Your task to perform on an android device: Open accessibility settings Image 0: 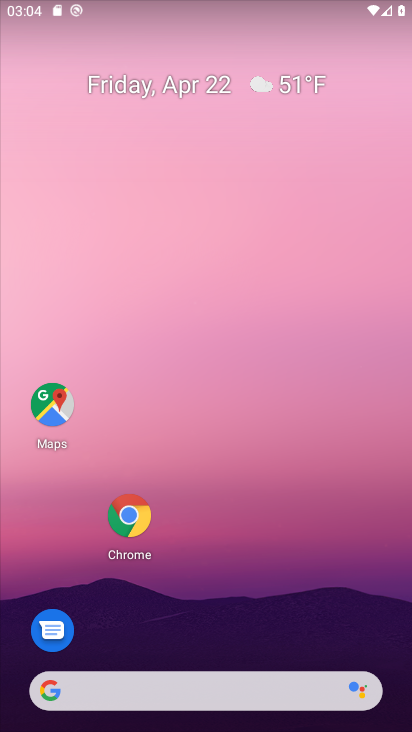
Step 0: drag from (342, 426) to (338, 163)
Your task to perform on an android device: Open accessibility settings Image 1: 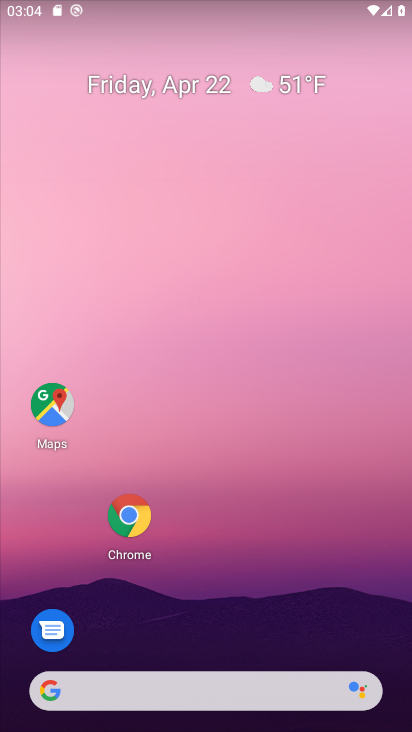
Step 1: click (373, 198)
Your task to perform on an android device: Open accessibility settings Image 2: 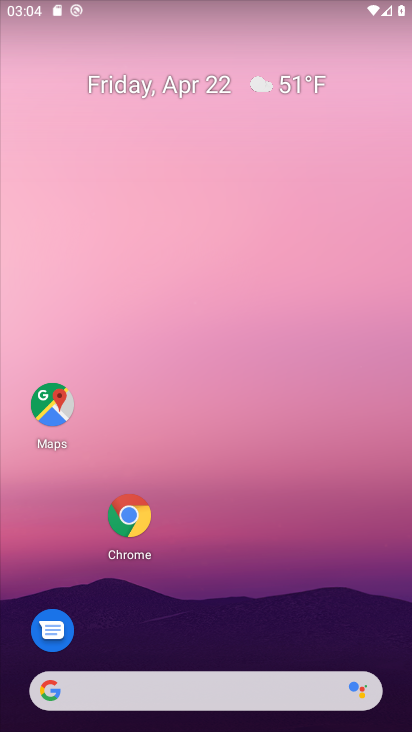
Step 2: drag from (395, 676) to (394, 240)
Your task to perform on an android device: Open accessibility settings Image 3: 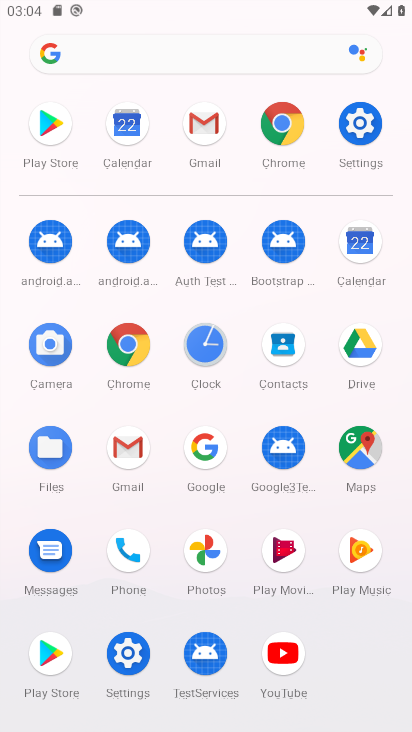
Step 3: click (130, 650)
Your task to perform on an android device: Open accessibility settings Image 4: 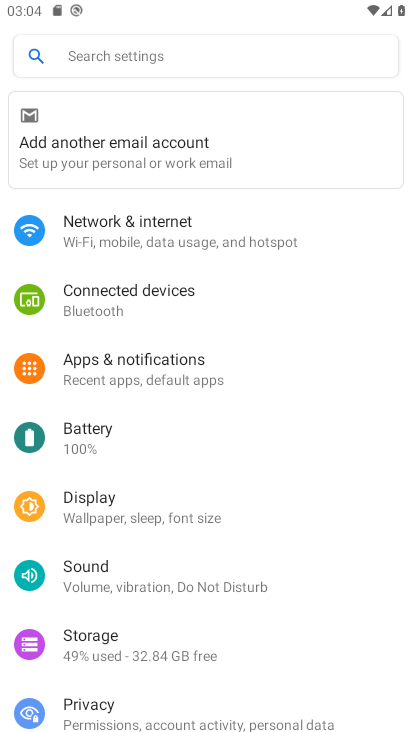
Step 4: drag from (360, 680) to (303, 271)
Your task to perform on an android device: Open accessibility settings Image 5: 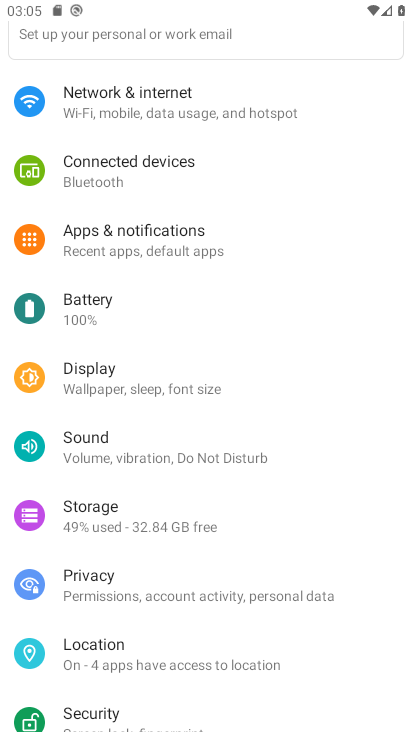
Step 5: drag from (302, 701) to (270, 410)
Your task to perform on an android device: Open accessibility settings Image 6: 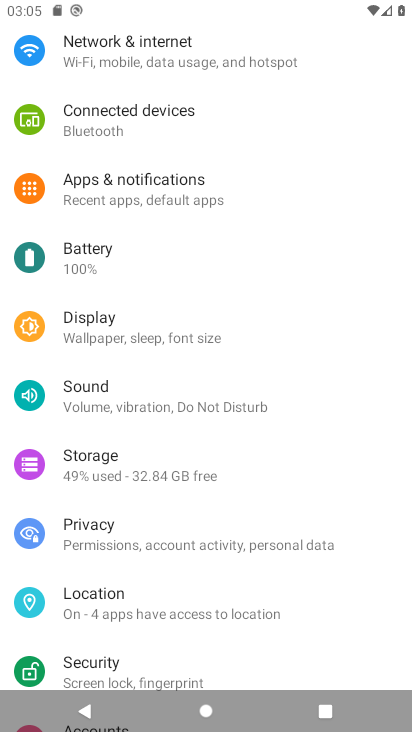
Step 6: drag from (345, 680) to (333, 280)
Your task to perform on an android device: Open accessibility settings Image 7: 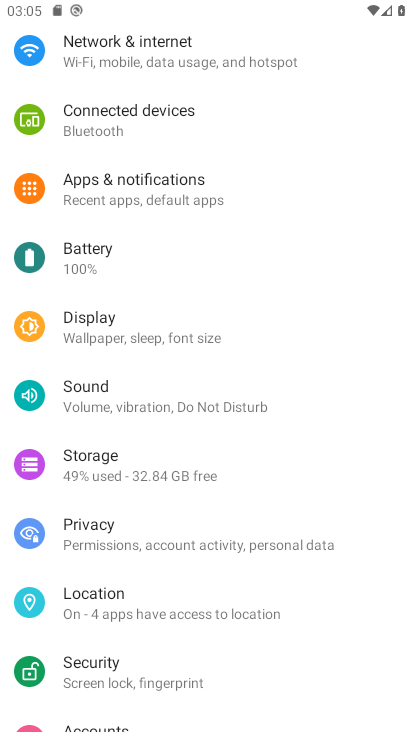
Step 7: click (366, 272)
Your task to perform on an android device: Open accessibility settings Image 8: 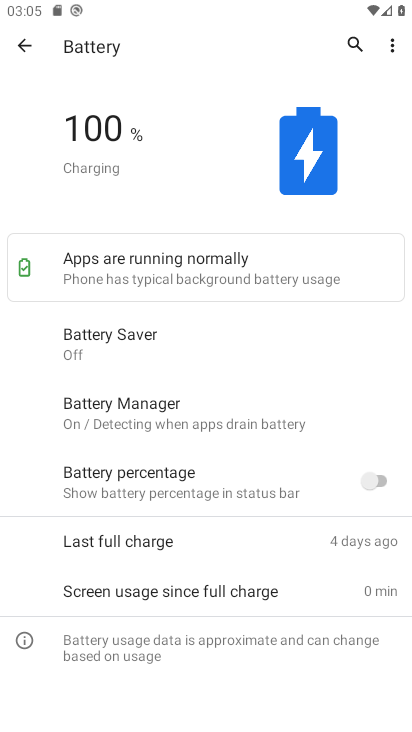
Step 8: drag from (384, 661) to (338, 207)
Your task to perform on an android device: Open accessibility settings Image 9: 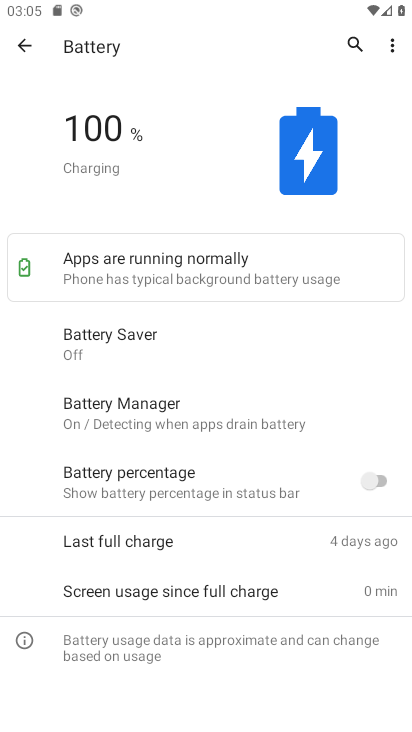
Step 9: click (24, 45)
Your task to perform on an android device: Open accessibility settings Image 10: 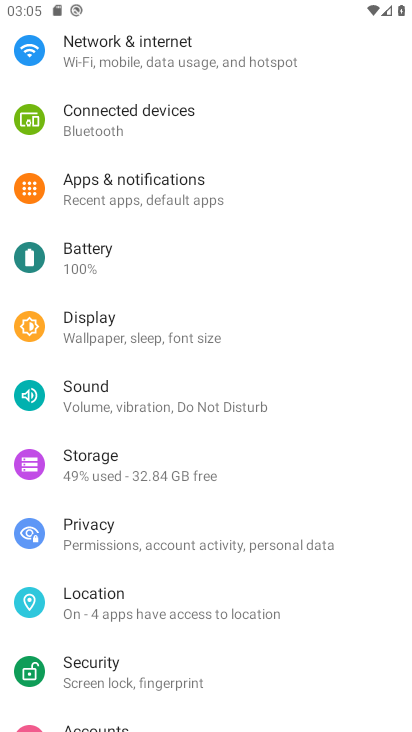
Step 10: drag from (338, 689) to (356, 269)
Your task to perform on an android device: Open accessibility settings Image 11: 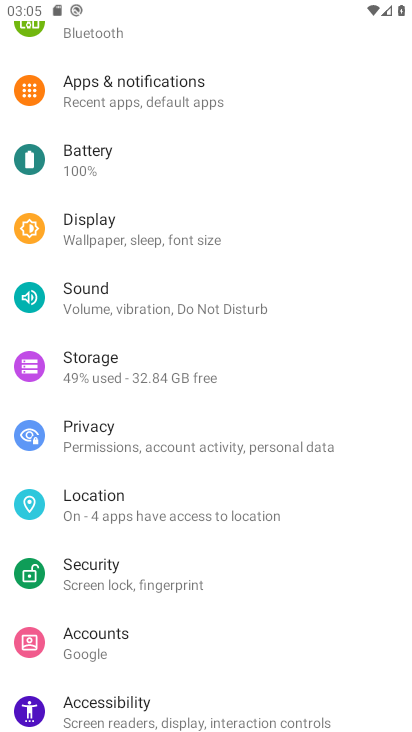
Step 11: drag from (339, 693) to (319, 259)
Your task to perform on an android device: Open accessibility settings Image 12: 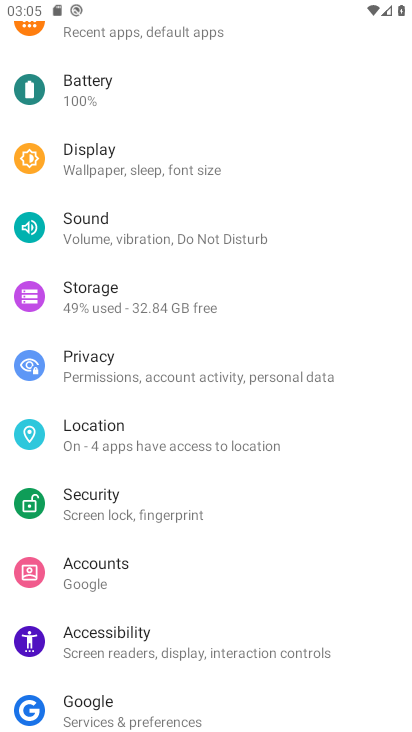
Step 12: drag from (367, 394) to (352, 297)
Your task to perform on an android device: Open accessibility settings Image 13: 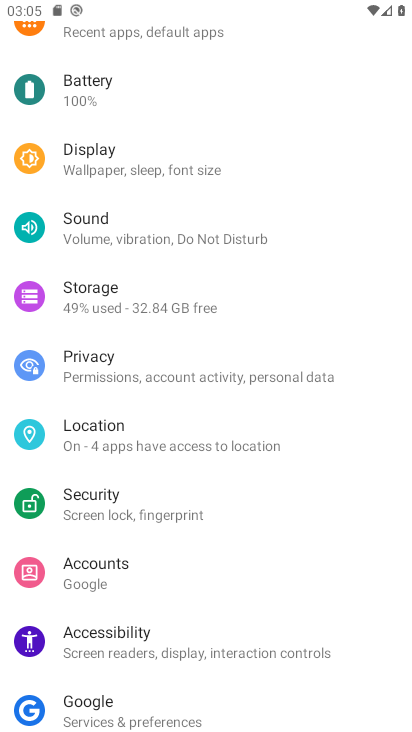
Step 13: drag from (358, 681) to (340, 221)
Your task to perform on an android device: Open accessibility settings Image 14: 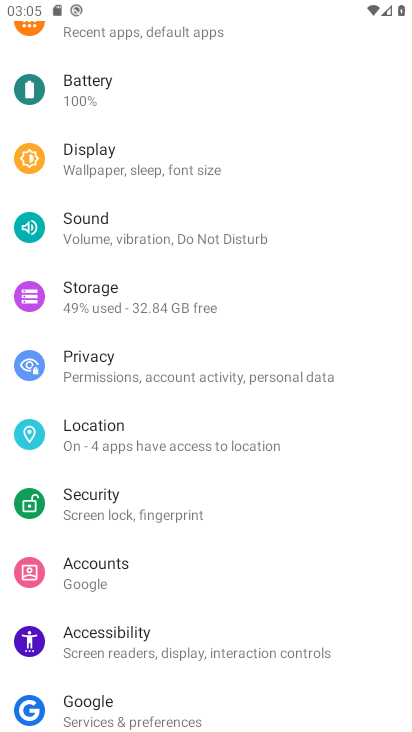
Step 14: click (112, 623)
Your task to perform on an android device: Open accessibility settings Image 15: 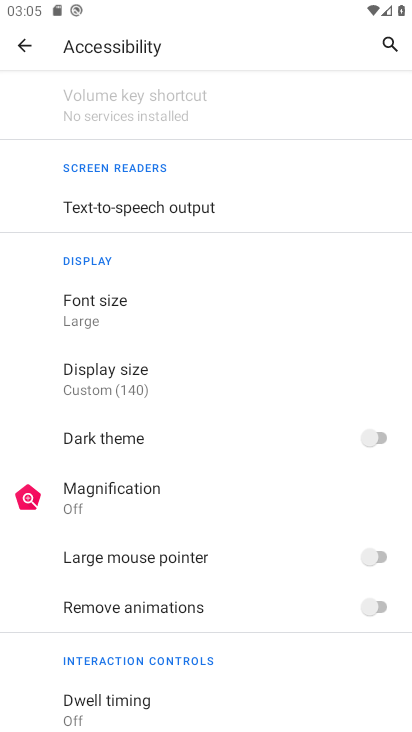
Step 15: task complete